Your task to perform on an android device: Open maps Image 0: 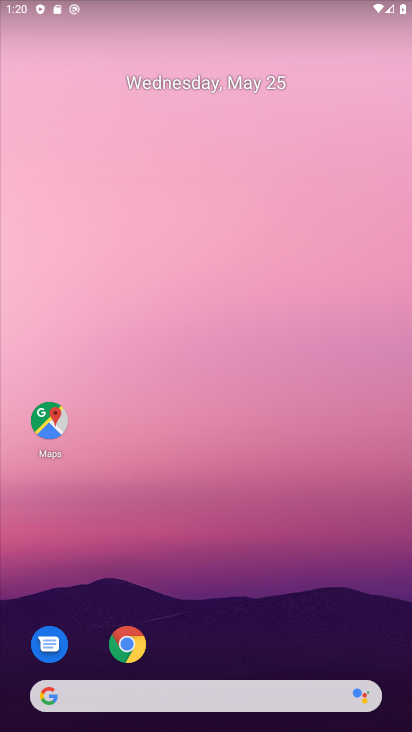
Step 0: drag from (199, 642) to (194, 0)
Your task to perform on an android device: Open maps Image 1: 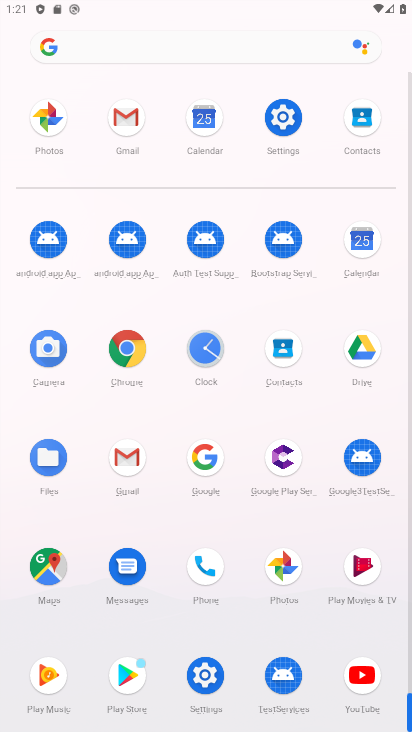
Step 1: click (53, 579)
Your task to perform on an android device: Open maps Image 2: 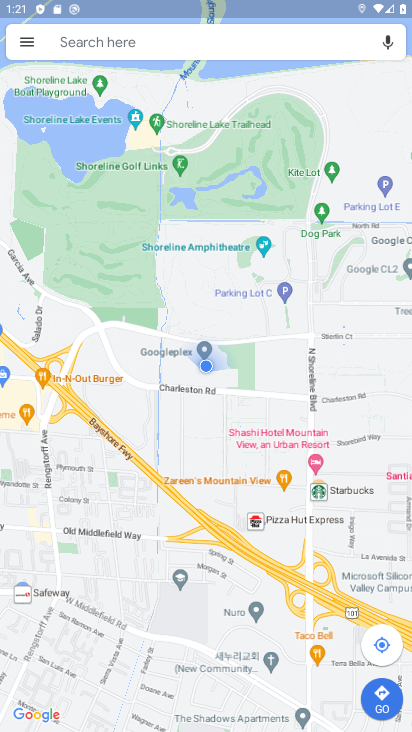
Step 2: task complete